Your task to perform on an android device: toggle javascript in the chrome app Image 0: 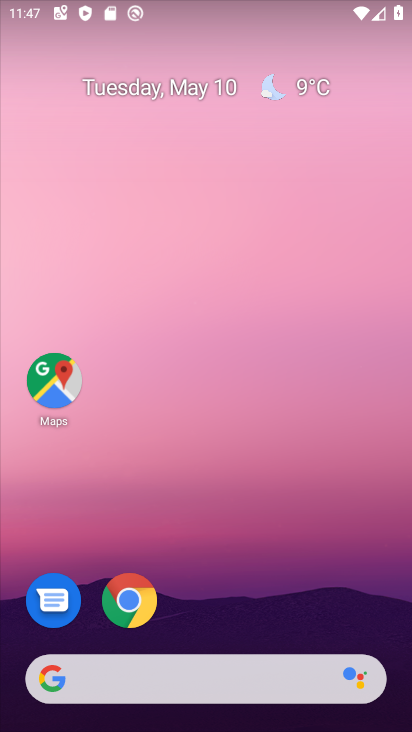
Step 0: click (123, 573)
Your task to perform on an android device: toggle javascript in the chrome app Image 1: 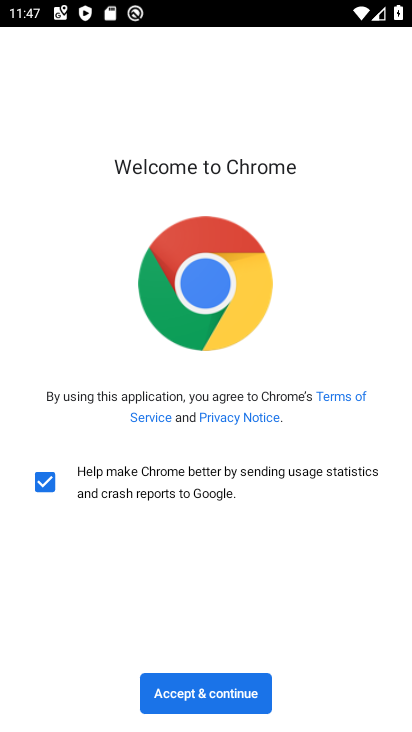
Step 1: click (201, 695)
Your task to perform on an android device: toggle javascript in the chrome app Image 2: 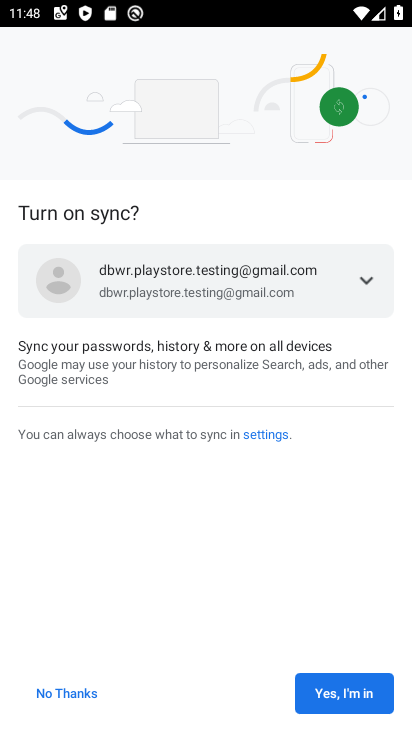
Step 2: click (343, 701)
Your task to perform on an android device: toggle javascript in the chrome app Image 3: 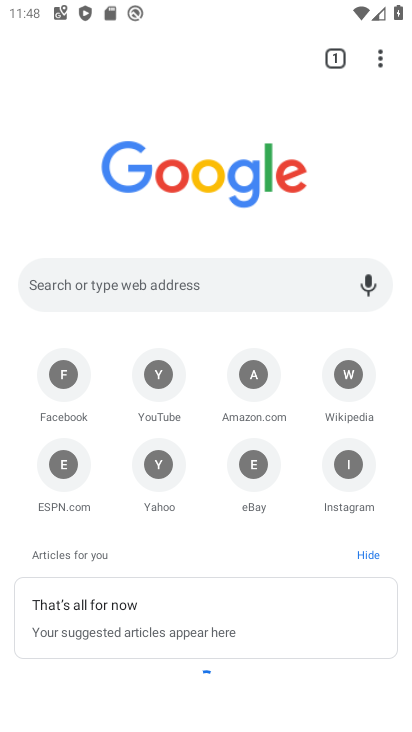
Step 3: click (386, 65)
Your task to perform on an android device: toggle javascript in the chrome app Image 4: 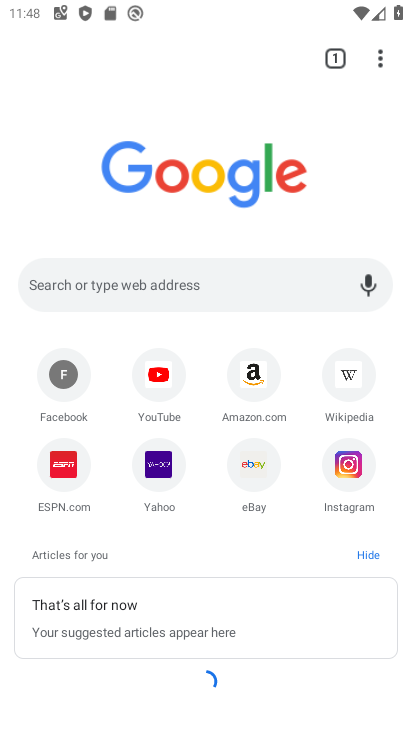
Step 4: click (389, 52)
Your task to perform on an android device: toggle javascript in the chrome app Image 5: 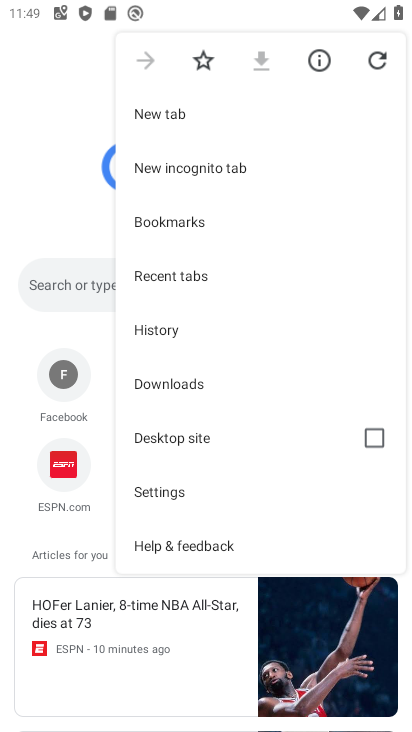
Step 5: click (184, 502)
Your task to perform on an android device: toggle javascript in the chrome app Image 6: 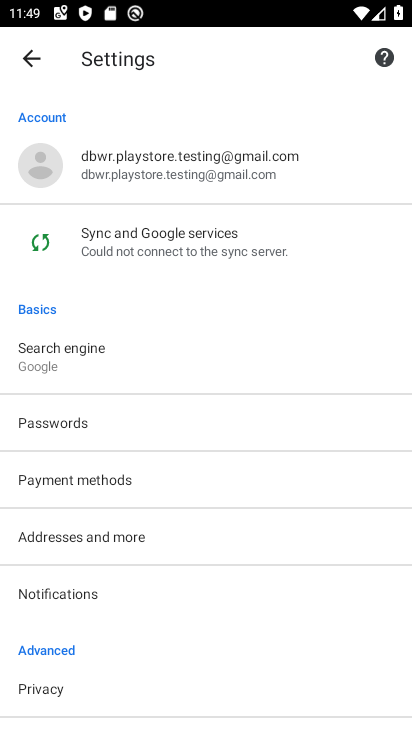
Step 6: drag from (112, 651) to (193, 230)
Your task to perform on an android device: toggle javascript in the chrome app Image 7: 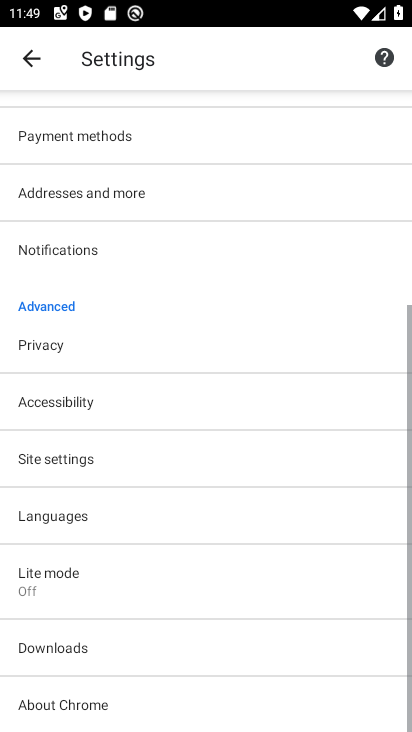
Step 7: click (80, 455)
Your task to perform on an android device: toggle javascript in the chrome app Image 8: 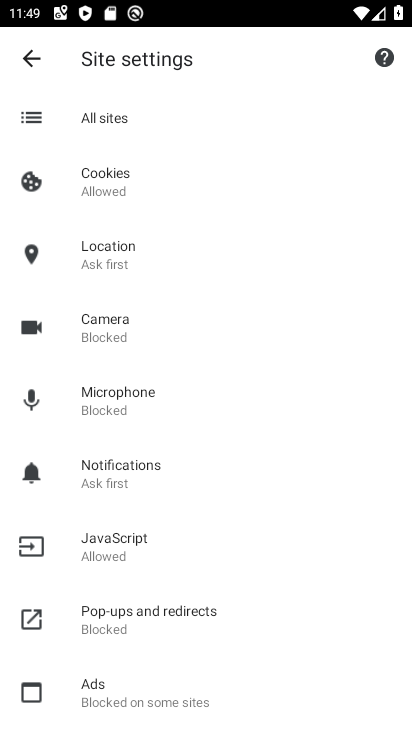
Step 8: click (145, 536)
Your task to perform on an android device: toggle javascript in the chrome app Image 9: 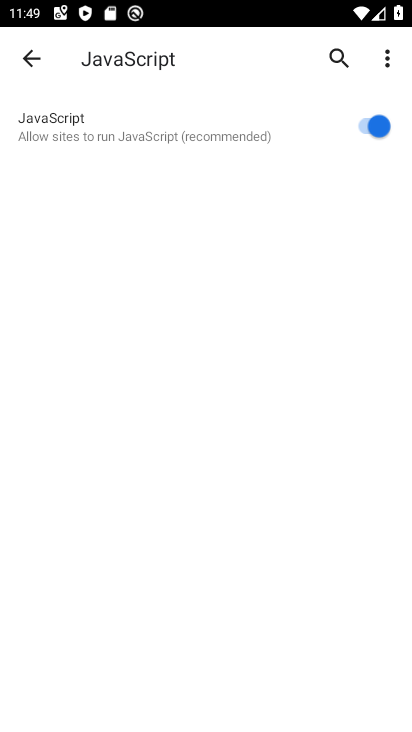
Step 9: click (384, 126)
Your task to perform on an android device: toggle javascript in the chrome app Image 10: 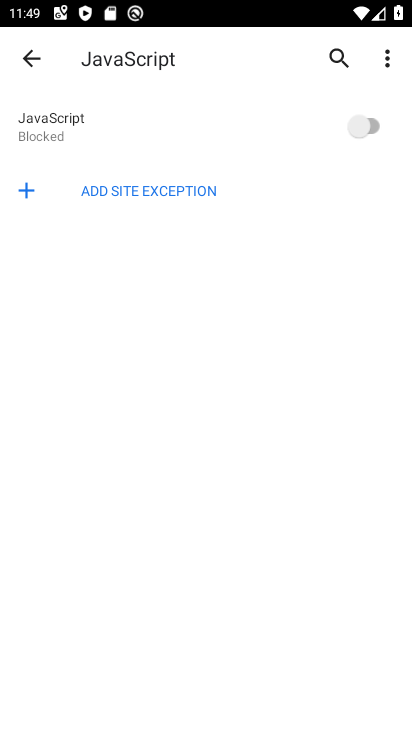
Step 10: task complete